Your task to perform on an android device: change keyboard looks Image 0: 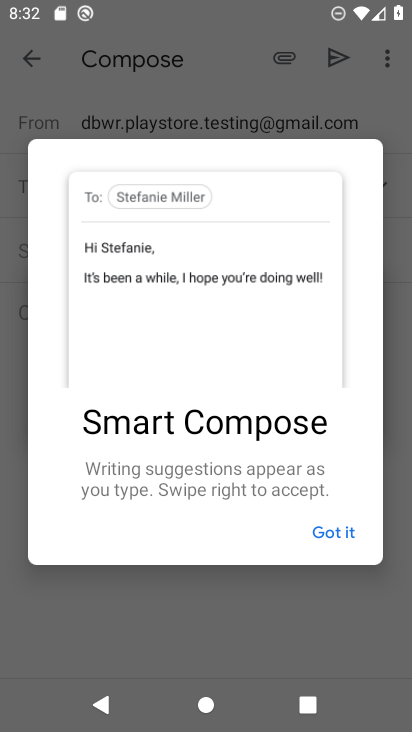
Step 0: press home button
Your task to perform on an android device: change keyboard looks Image 1: 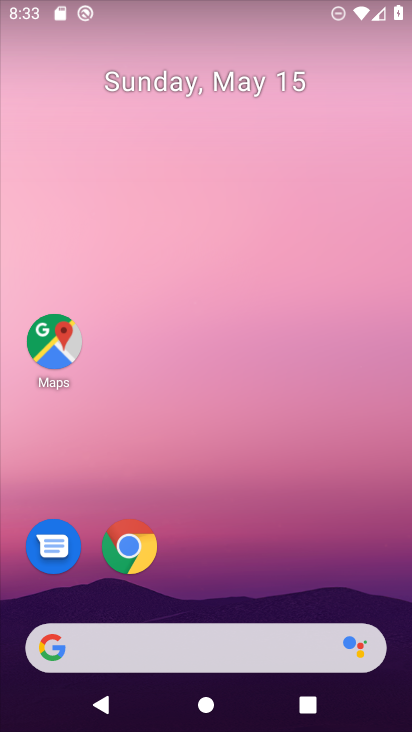
Step 1: drag from (253, 525) to (231, 19)
Your task to perform on an android device: change keyboard looks Image 2: 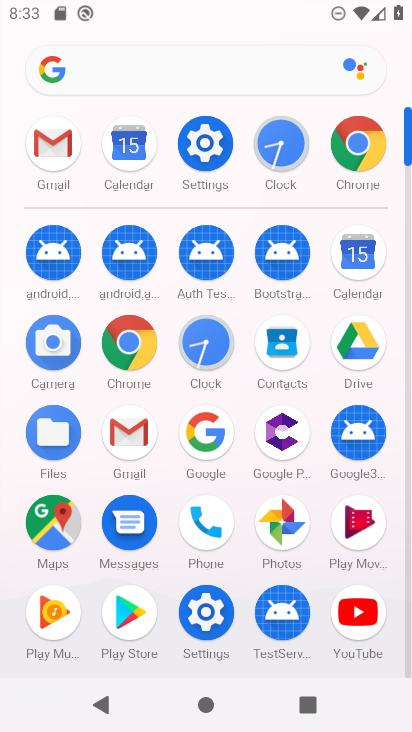
Step 2: click (209, 132)
Your task to perform on an android device: change keyboard looks Image 3: 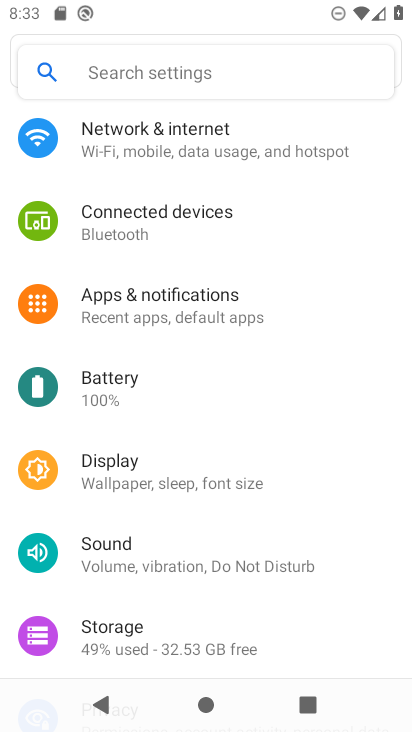
Step 3: drag from (236, 511) to (204, 139)
Your task to perform on an android device: change keyboard looks Image 4: 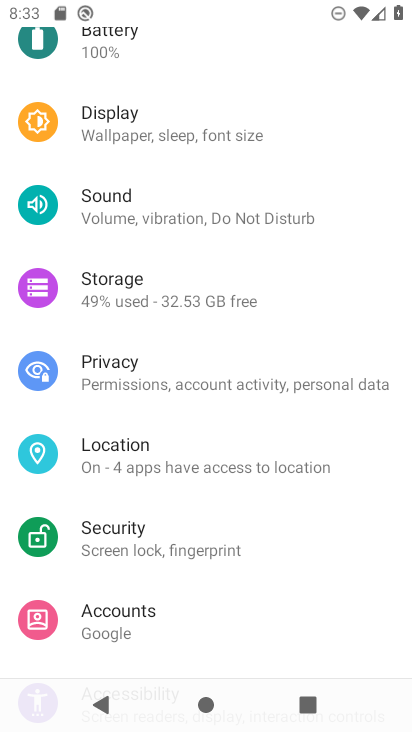
Step 4: drag from (205, 589) to (218, 89)
Your task to perform on an android device: change keyboard looks Image 5: 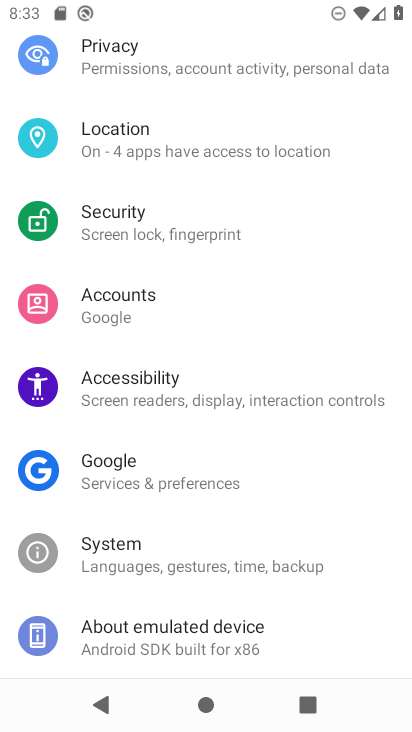
Step 5: click (188, 556)
Your task to perform on an android device: change keyboard looks Image 6: 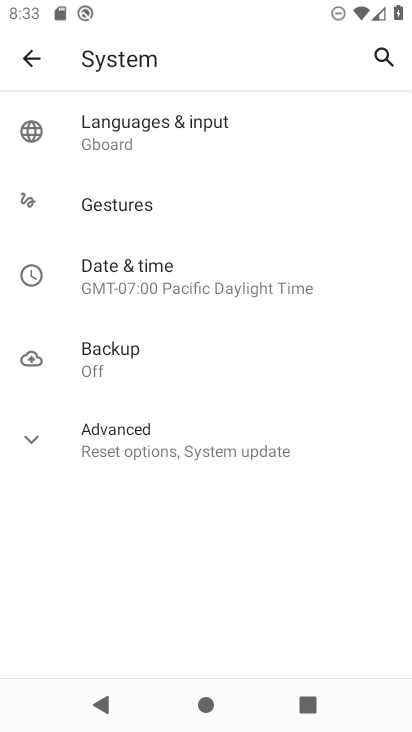
Step 6: click (149, 136)
Your task to perform on an android device: change keyboard looks Image 7: 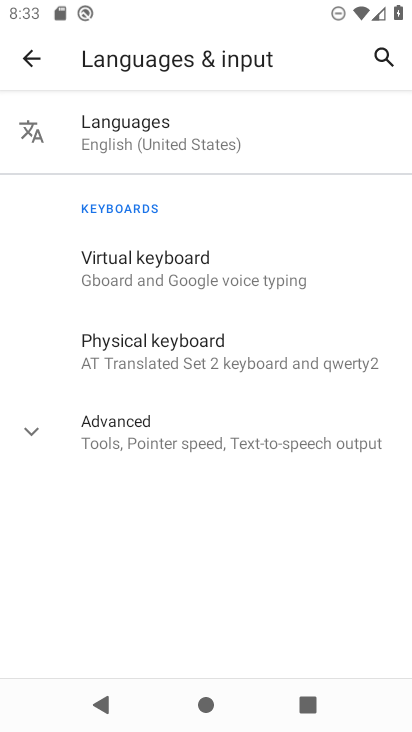
Step 7: click (178, 274)
Your task to perform on an android device: change keyboard looks Image 8: 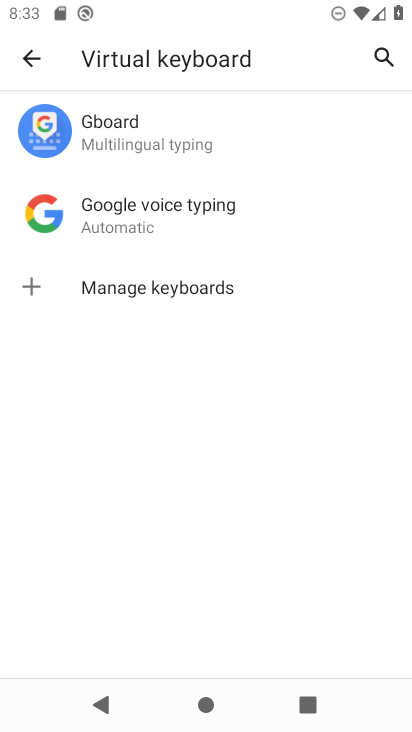
Step 8: click (170, 122)
Your task to perform on an android device: change keyboard looks Image 9: 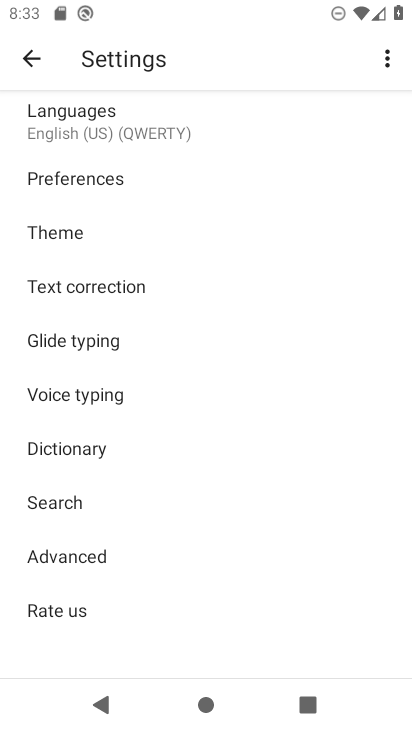
Step 9: click (135, 231)
Your task to perform on an android device: change keyboard looks Image 10: 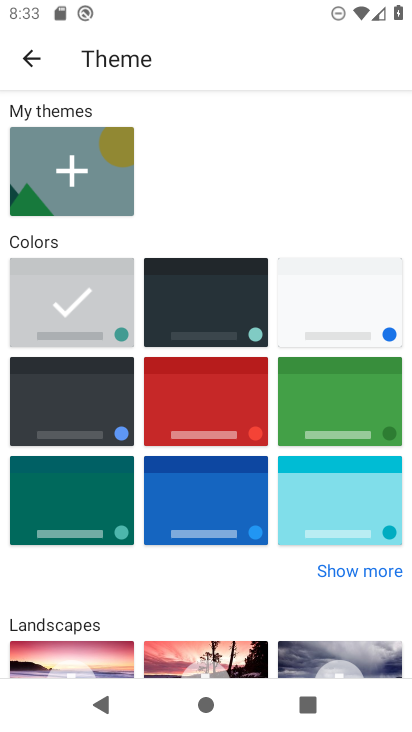
Step 10: click (183, 308)
Your task to perform on an android device: change keyboard looks Image 11: 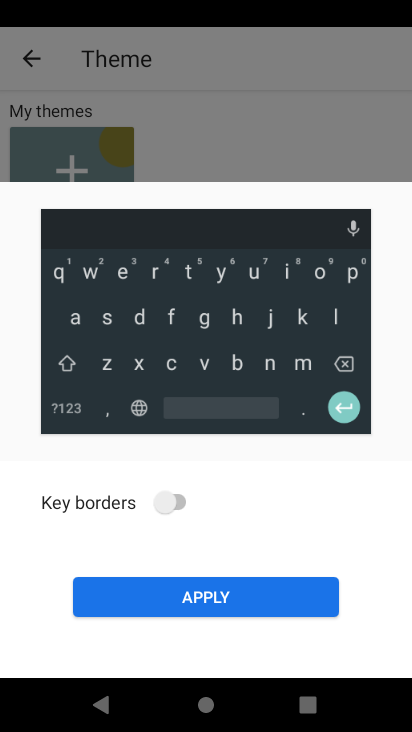
Step 11: click (175, 492)
Your task to perform on an android device: change keyboard looks Image 12: 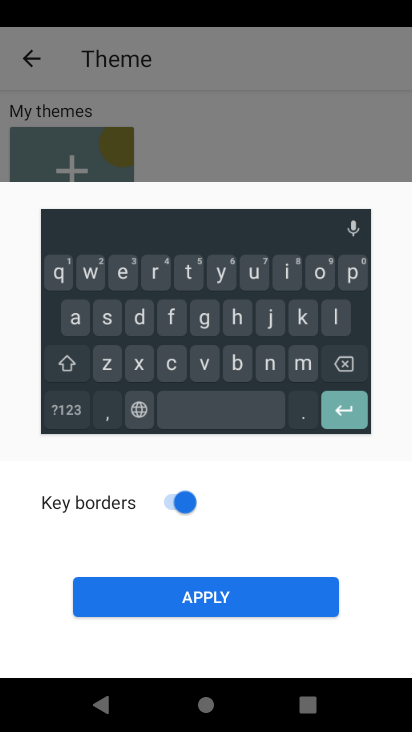
Step 12: click (202, 584)
Your task to perform on an android device: change keyboard looks Image 13: 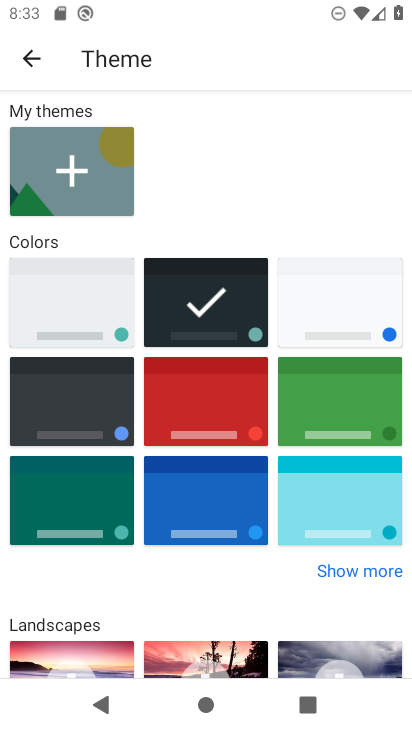
Step 13: task complete